Your task to perform on an android device: What's the weather going to be tomorrow? Image 0: 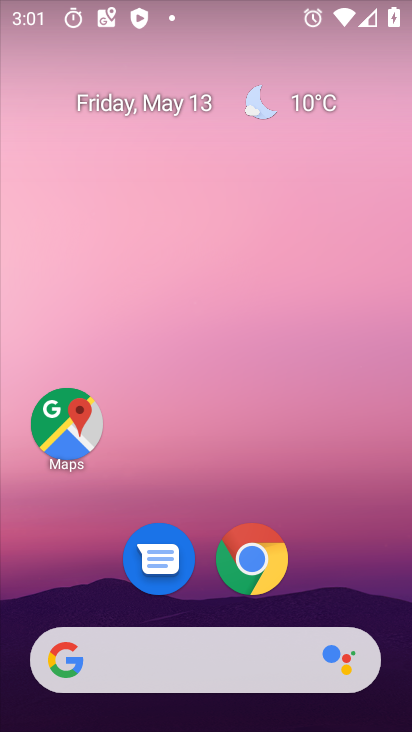
Step 0: click (225, 368)
Your task to perform on an android device: What's the weather going to be tomorrow? Image 1: 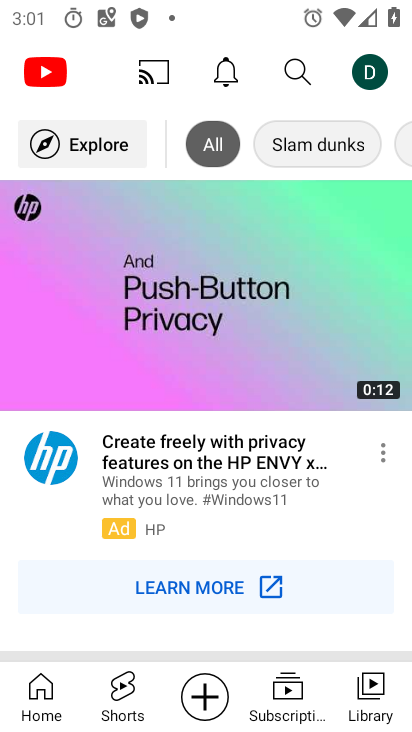
Step 1: press home button
Your task to perform on an android device: What's the weather going to be tomorrow? Image 2: 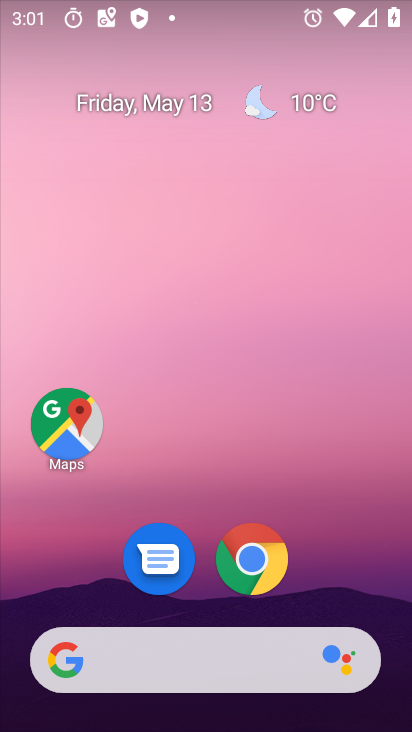
Step 2: drag from (225, 613) to (238, 243)
Your task to perform on an android device: What's the weather going to be tomorrow? Image 3: 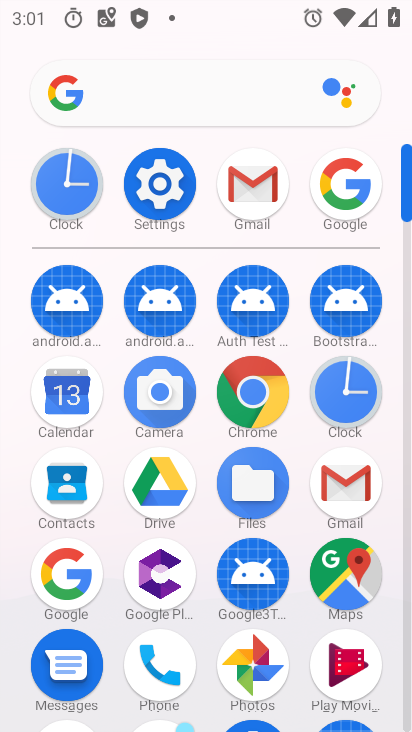
Step 3: click (316, 200)
Your task to perform on an android device: What's the weather going to be tomorrow? Image 4: 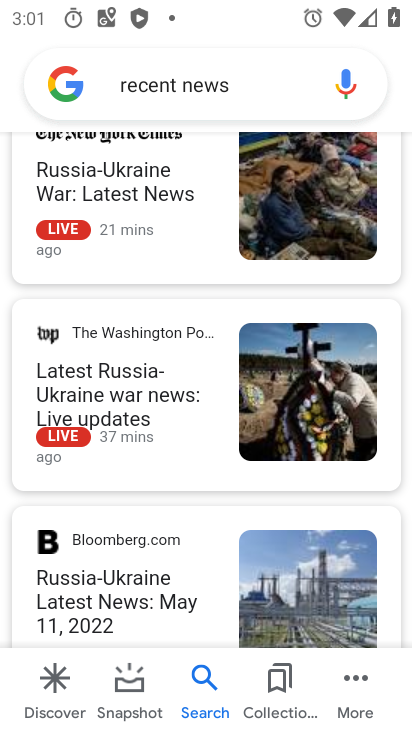
Step 4: click (226, 83)
Your task to perform on an android device: What's the weather going to be tomorrow? Image 5: 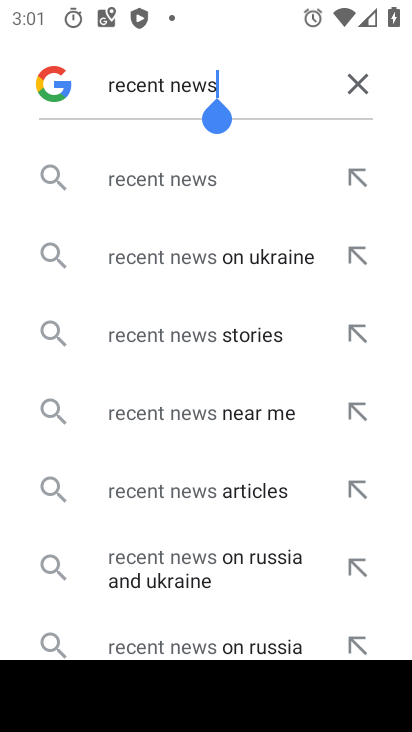
Step 5: click (355, 86)
Your task to perform on an android device: What's the weather going to be tomorrow? Image 6: 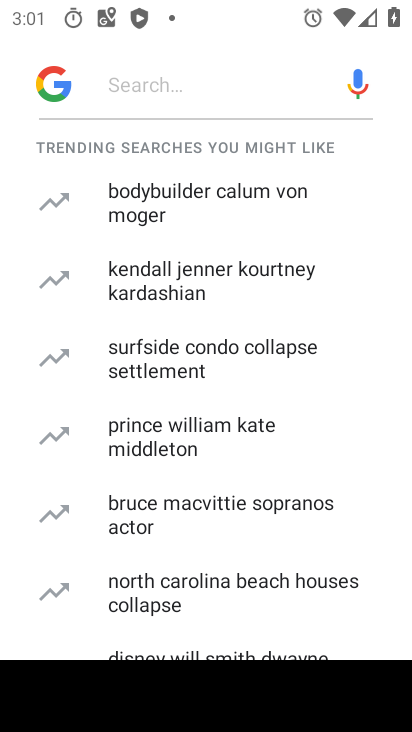
Step 6: press back button
Your task to perform on an android device: What's the weather going to be tomorrow? Image 7: 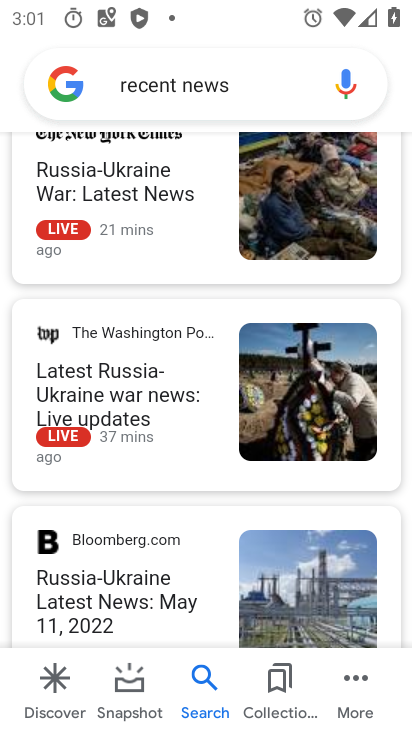
Step 7: click (216, 88)
Your task to perform on an android device: What's the weather going to be tomorrow? Image 8: 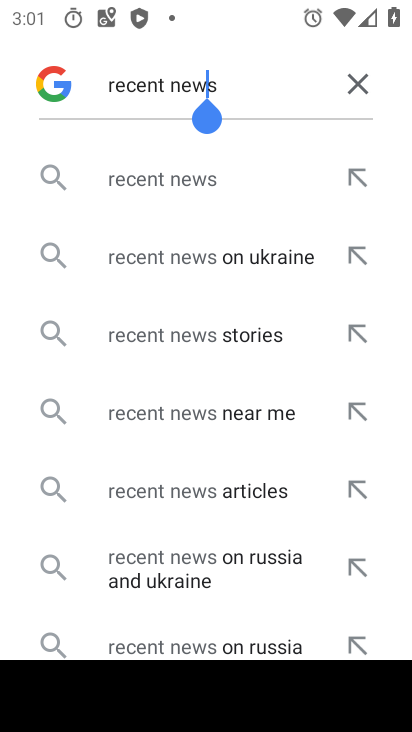
Step 8: click (349, 81)
Your task to perform on an android device: What's the weather going to be tomorrow? Image 9: 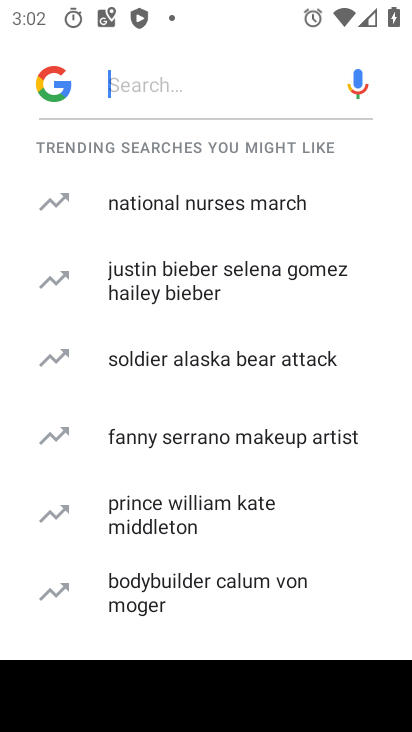
Step 9: type "weather"
Your task to perform on an android device: What's the weather going to be tomorrow? Image 10: 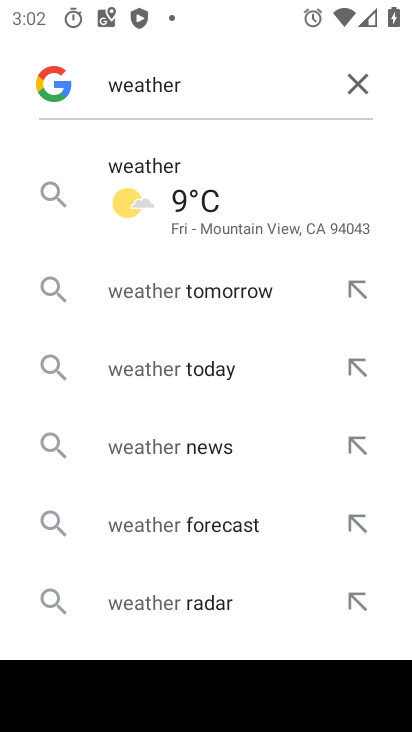
Step 10: click (266, 228)
Your task to perform on an android device: What's the weather going to be tomorrow? Image 11: 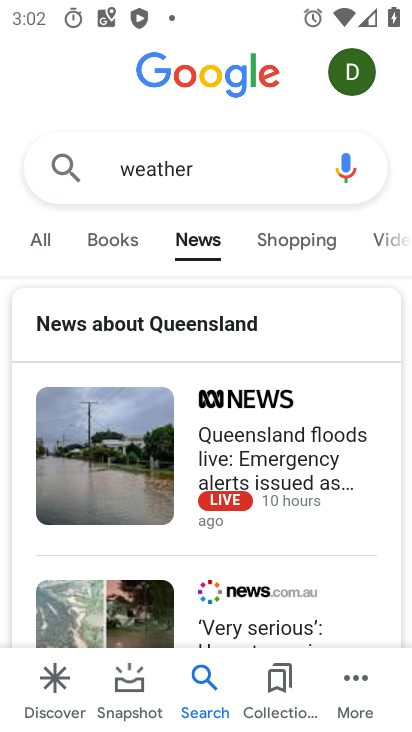
Step 11: click (55, 245)
Your task to perform on an android device: What's the weather going to be tomorrow? Image 12: 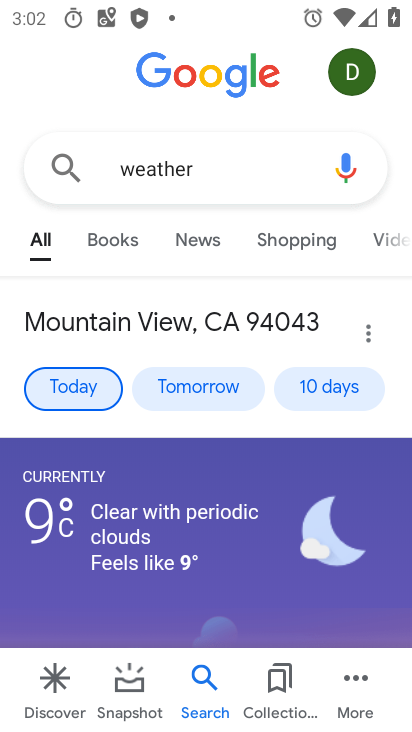
Step 12: task complete